Your task to perform on an android device: add a label to a message in the gmail app Image 0: 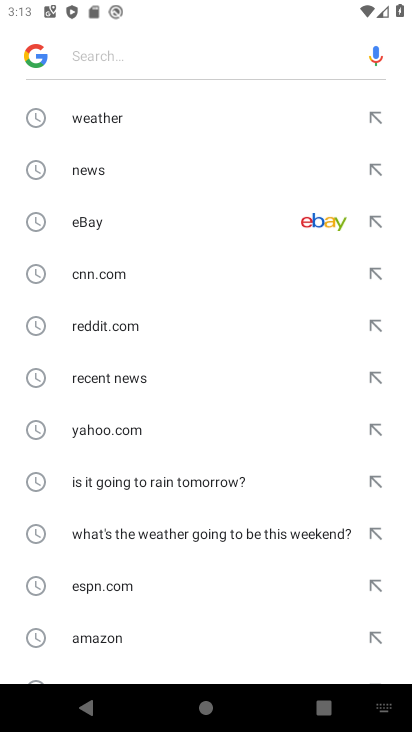
Step 0: press home button
Your task to perform on an android device: add a label to a message in the gmail app Image 1: 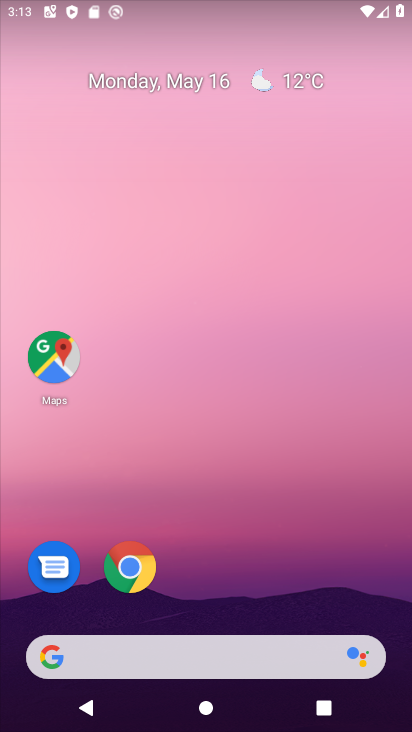
Step 1: drag from (235, 554) to (294, 109)
Your task to perform on an android device: add a label to a message in the gmail app Image 2: 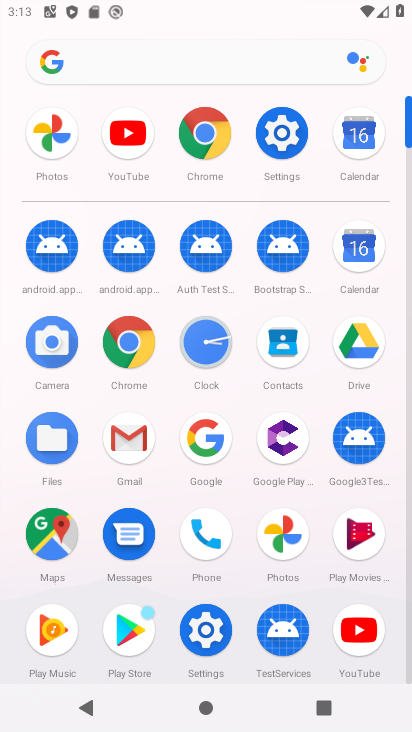
Step 2: click (136, 433)
Your task to perform on an android device: add a label to a message in the gmail app Image 3: 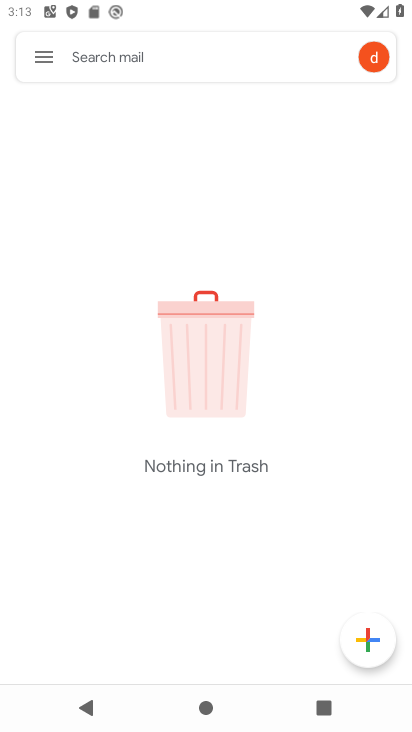
Step 3: click (38, 55)
Your task to perform on an android device: add a label to a message in the gmail app Image 4: 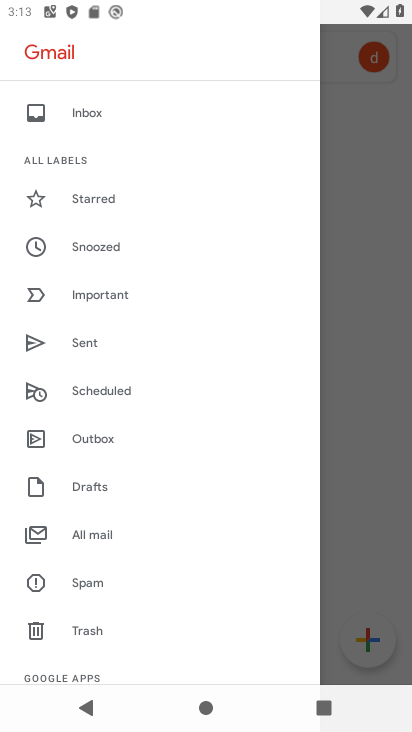
Step 4: click (97, 539)
Your task to perform on an android device: add a label to a message in the gmail app Image 5: 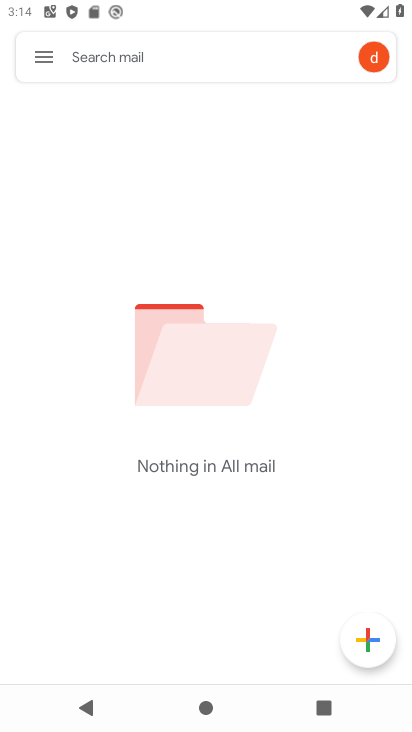
Step 5: task complete